Your task to perform on an android device: create a new album in the google photos Image 0: 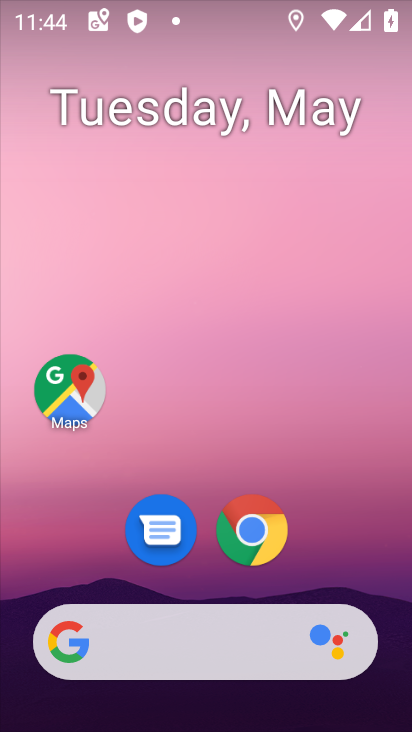
Step 0: drag from (232, 582) to (320, 230)
Your task to perform on an android device: create a new album in the google photos Image 1: 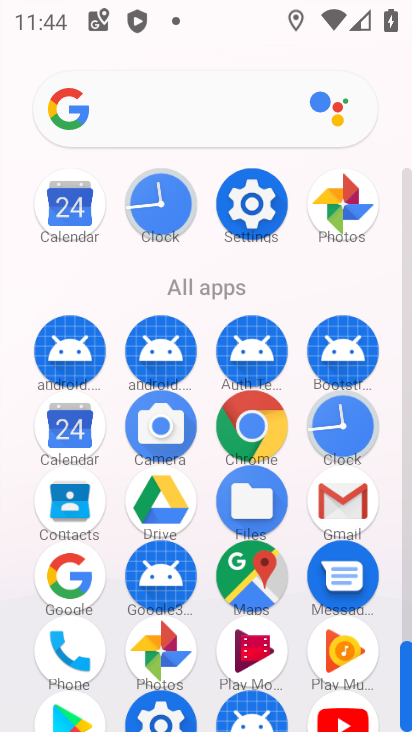
Step 1: click (162, 652)
Your task to perform on an android device: create a new album in the google photos Image 2: 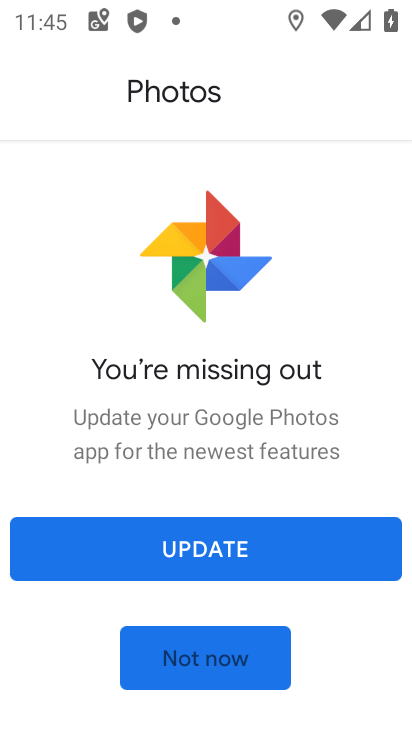
Step 2: task complete